Your task to perform on an android device: Open calendar and show me the fourth week of next month Image 0: 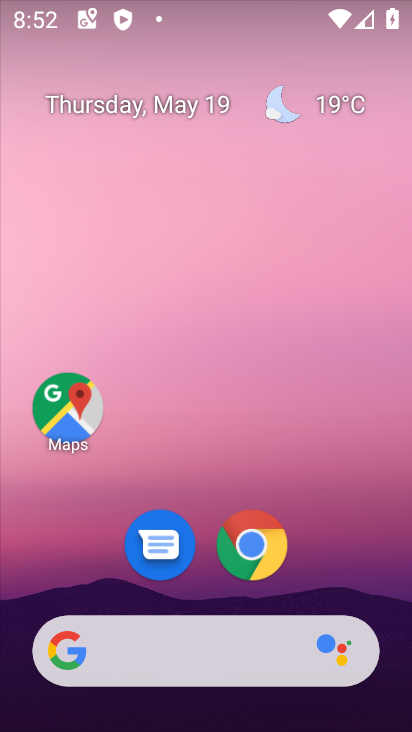
Step 0: drag from (341, 543) to (337, 112)
Your task to perform on an android device: Open calendar and show me the fourth week of next month Image 1: 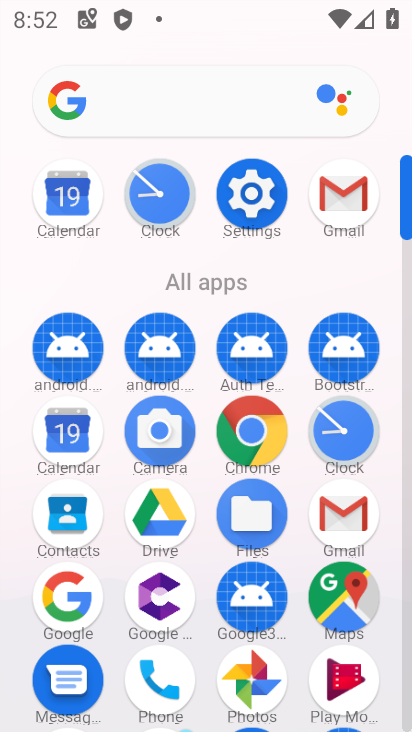
Step 1: click (63, 193)
Your task to perform on an android device: Open calendar and show me the fourth week of next month Image 2: 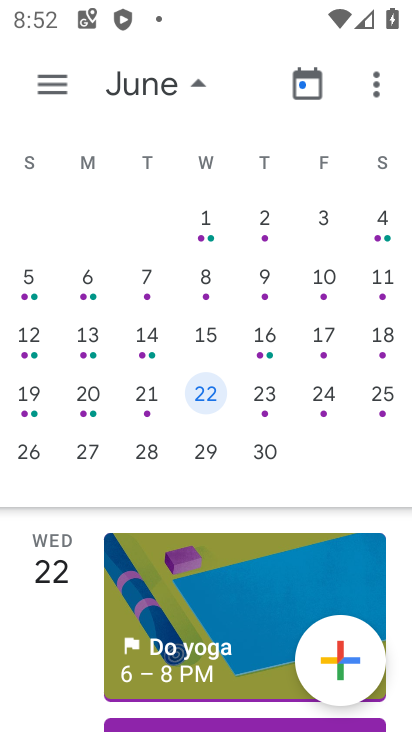
Step 2: task complete